Your task to perform on an android device: Search for pizza restaurants on Maps Image 0: 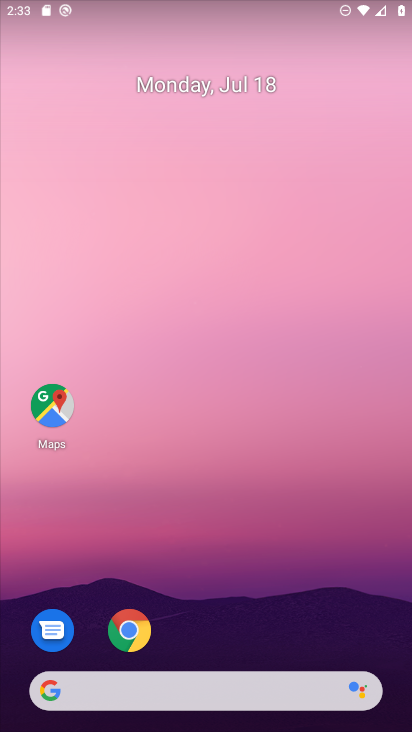
Step 0: press home button
Your task to perform on an android device: Search for pizza restaurants on Maps Image 1: 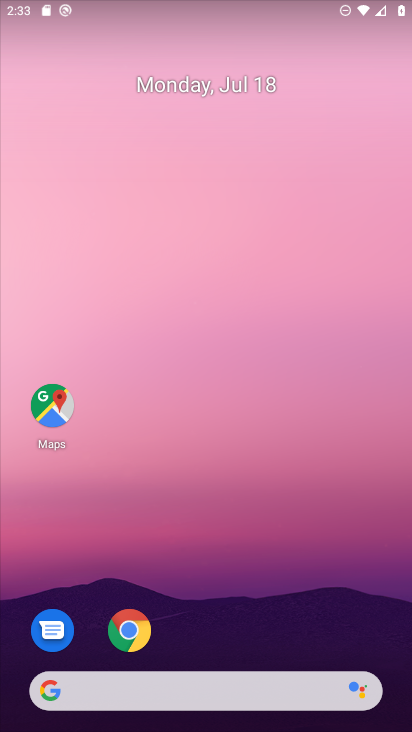
Step 1: drag from (270, 641) to (192, 30)
Your task to perform on an android device: Search for pizza restaurants on Maps Image 2: 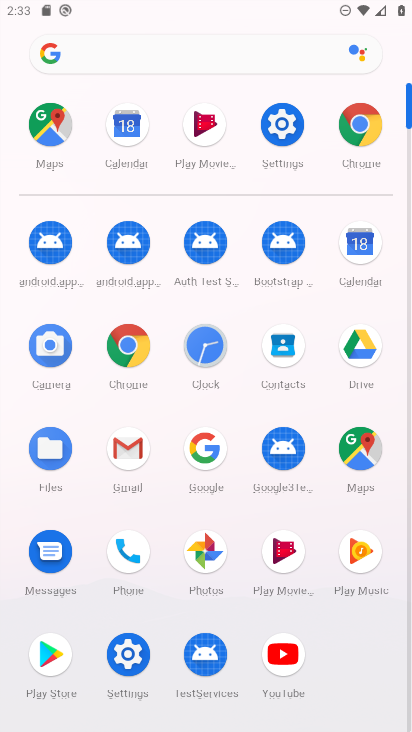
Step 2: click (38, 138)
Your task to perform on an android device: Search for pizza restaurants on Maps Image 3: 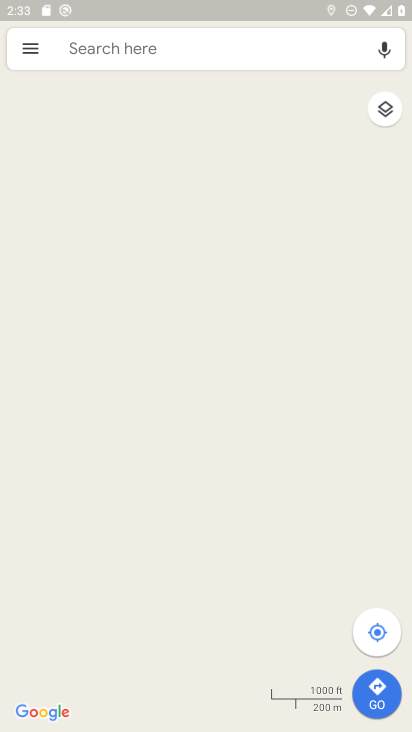
Step 3: click (164, 45)
Your task to perform on an android device: Search for pizza restaurants on Maps Image 4: 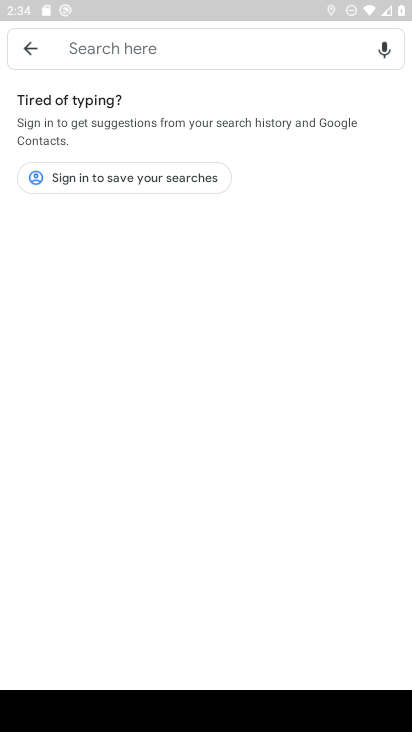
Step 4: type "pizza restaurants"
Your task to perform on an android device: Search for pizza restaurants on Maps Image 5: 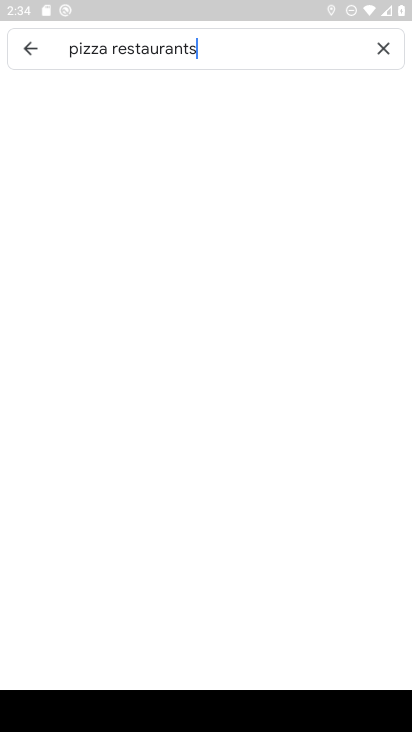
Step 5: press enter
Your task to perform on an android device: Search for pizza restaurants on Maps Image 6: 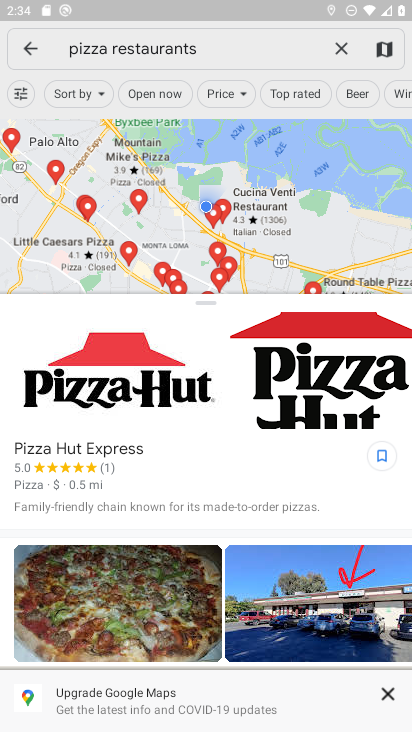
Step 6: task complete